Your task to perform on an android device: Do I have any events this weekend? Image 0: 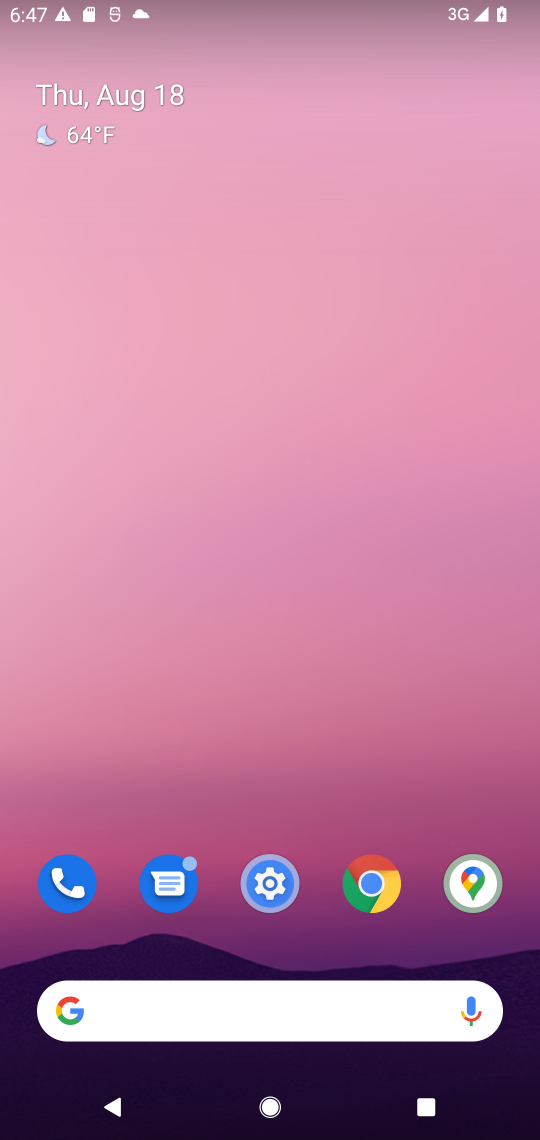
Step 0: drag from (26, 1114) to (210, 315)
Your task to perform on an android device: Do I have any events this weekend? Image 1: 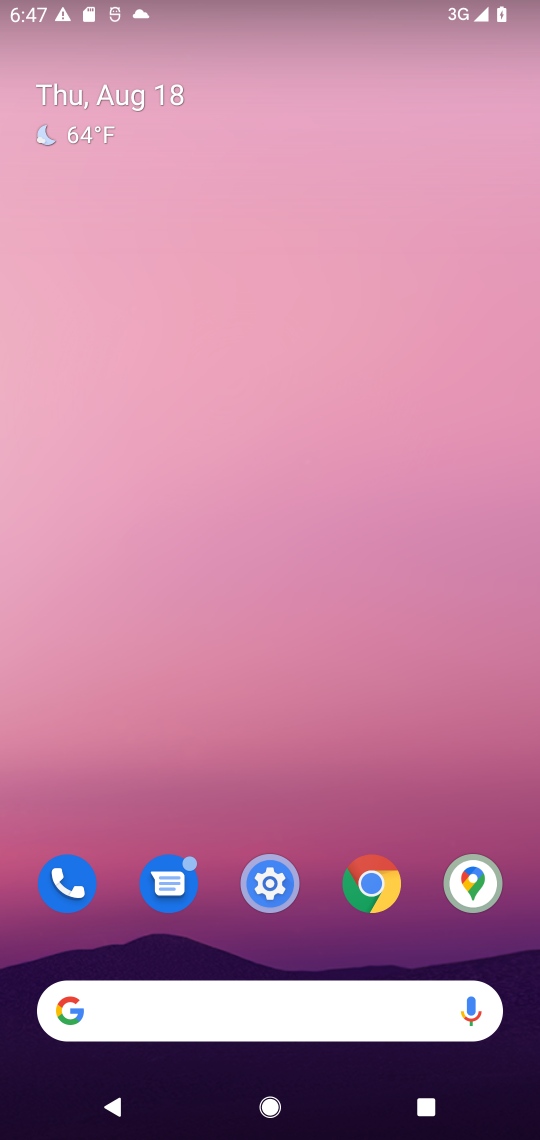
Step 1: task complete